Your task to perform on an android device: move a message to another label in the gmail app Image 0: 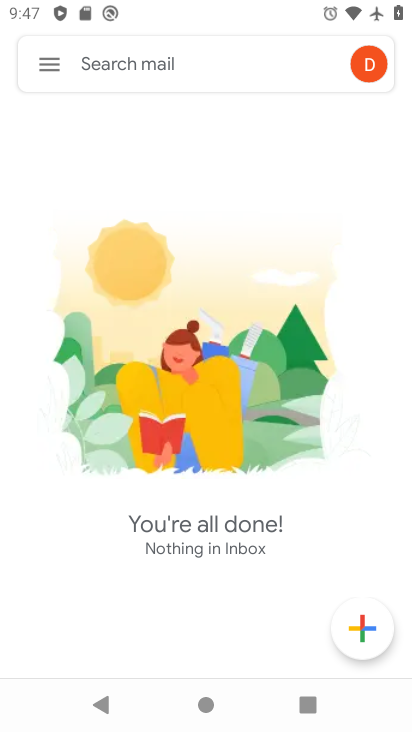
Step 0: press back button
Your task to perform on an android device: move a message to another label in the gmail app Image 1: 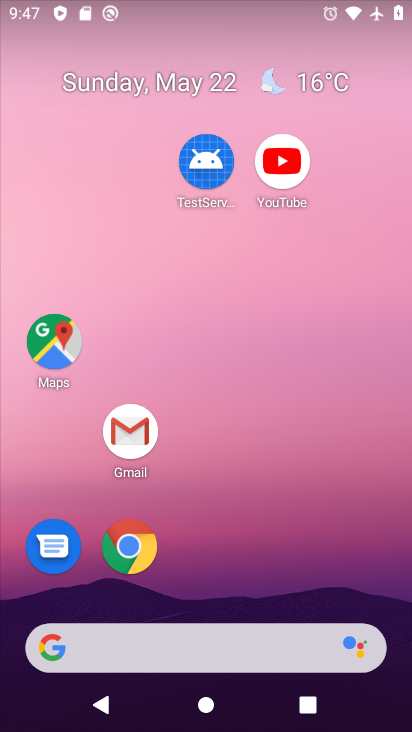
Step 1: drag from (244, 596) to (215, 12)
Your task to perform on an android device: move a message to another label in the gmail app Image 2: 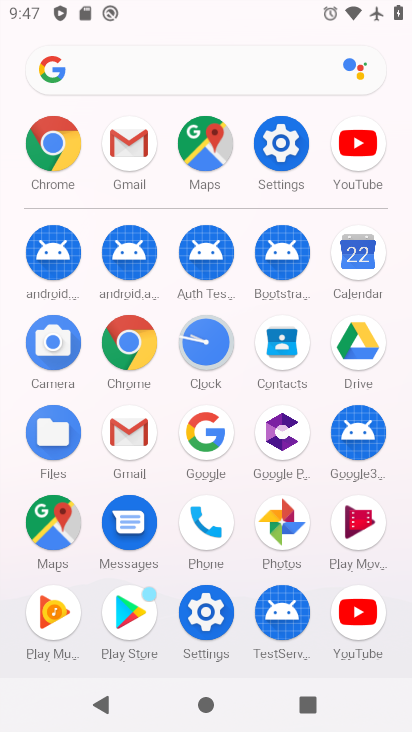
Step 2: click (127, 446)
Your task to perform on an android device: move a message to another label in the gmail app Image 3: 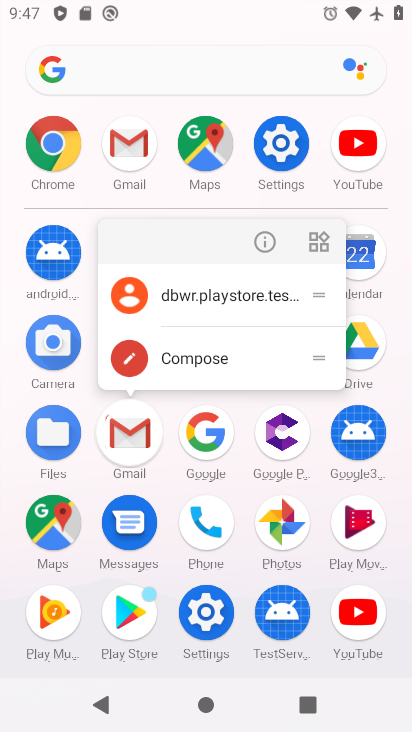
Step 3: click (127, 446)
Your task to perform on an android device: move a message to another label in the gmail app Image 4: 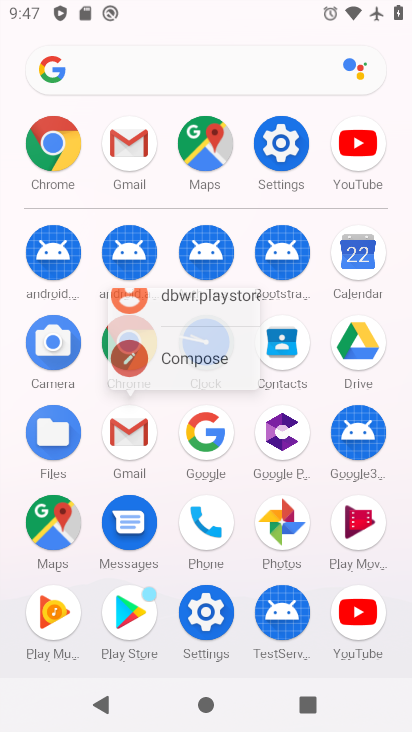
Step 4: click (127, 446)
Your task to perform on an android device: move a message to another label in the gmail app Image 5: 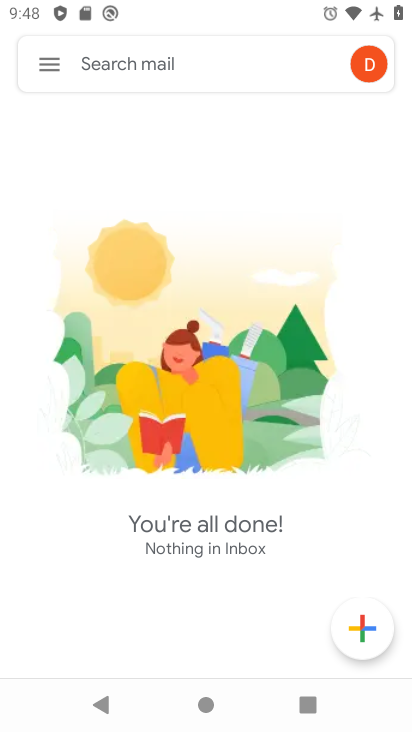
Step 5: press back button
Your task to perform on an android device: move a message to another label in the gmail app Image 6: 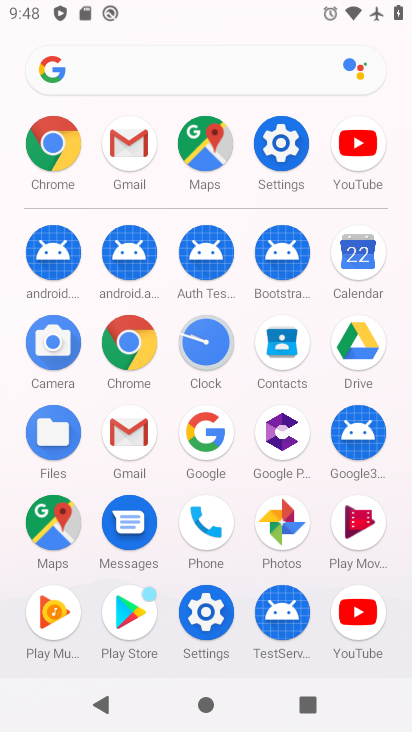
Step 6: click (133, 426)
Your task to perform on an android device: move a message to another label in the gmail app Image 7: 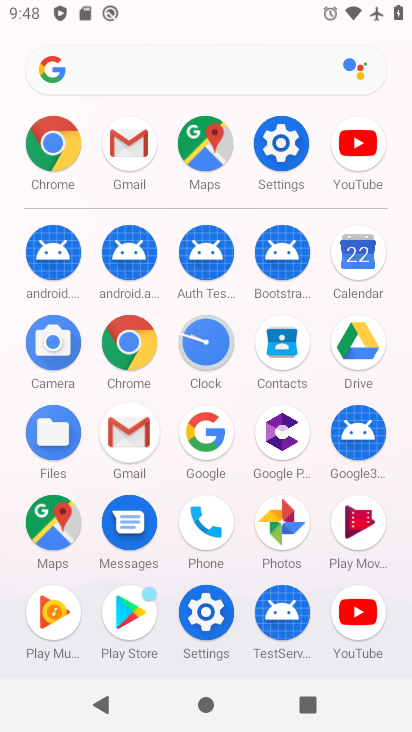
Step 7: click (133, 426)
Your task to perform on an android device: move a message to another label in the gmail app Image 8: 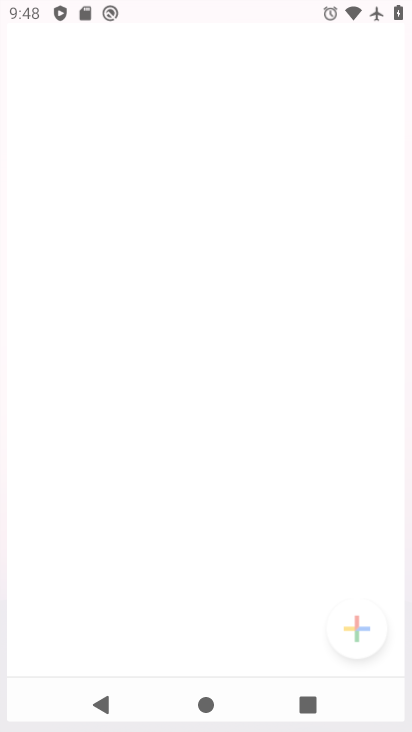
Step 8: click (133, 426)
Your task to perform on an android device: move a message to another label in the gmail app Image 9: 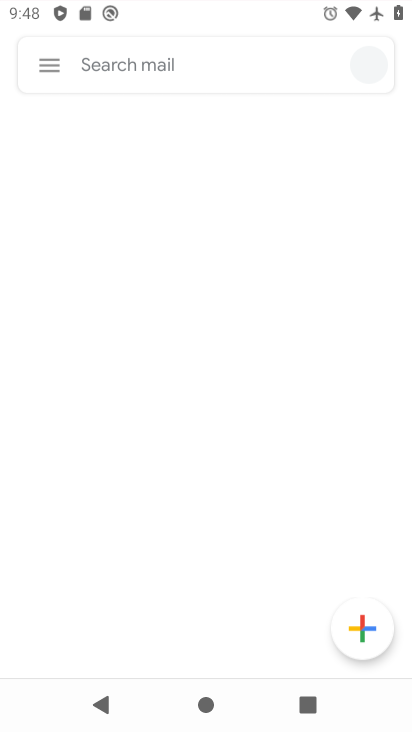
Step 9: click (133, 425)
Your task to perform on an android device: move a message to another label in the gmail app Image 10: 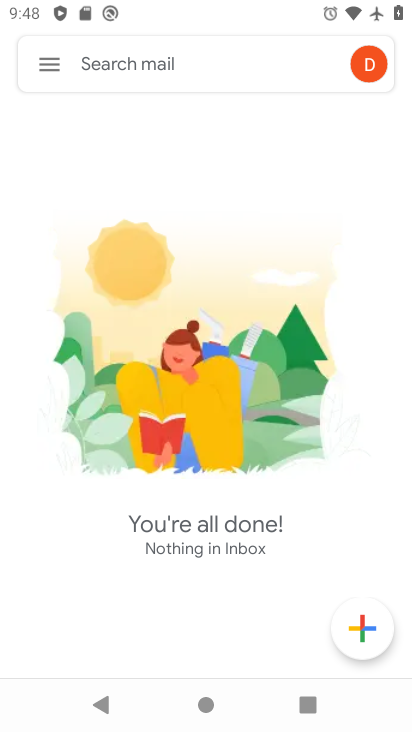
Step 10: click (40, 64)
Your task to perform on an android device: move a message to another label in the gmail app Image 11: 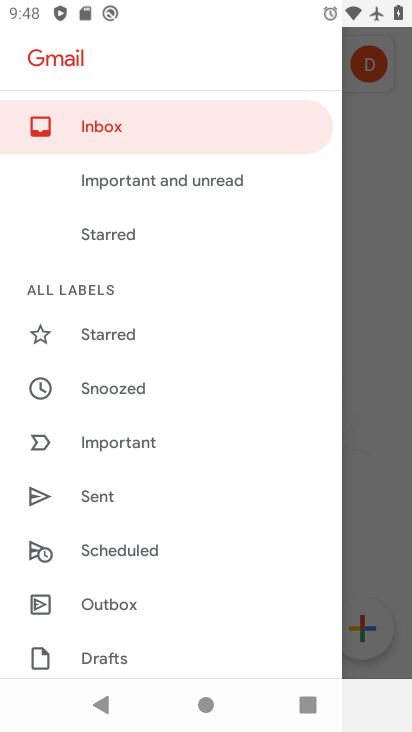
Step 11: drag from (155, 515) to (135, 168)
Your task to perform on an android device: move a message to another label in the gmail app Image 12: 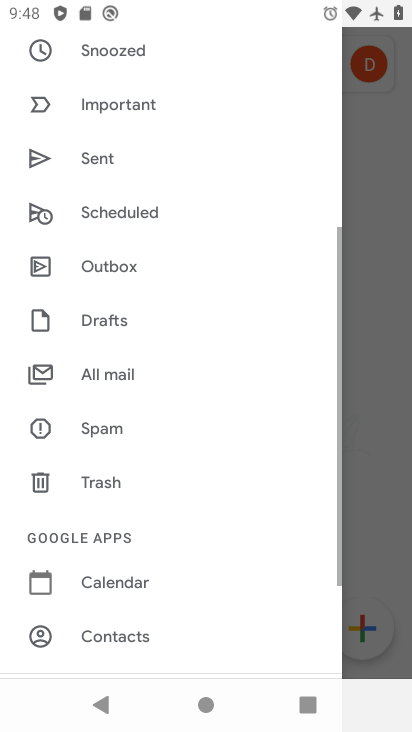
Step 12: drag from (190, 479) to (190, 172)
Your task to perform on an android device: move a message to another label in the gmail app Image 13: 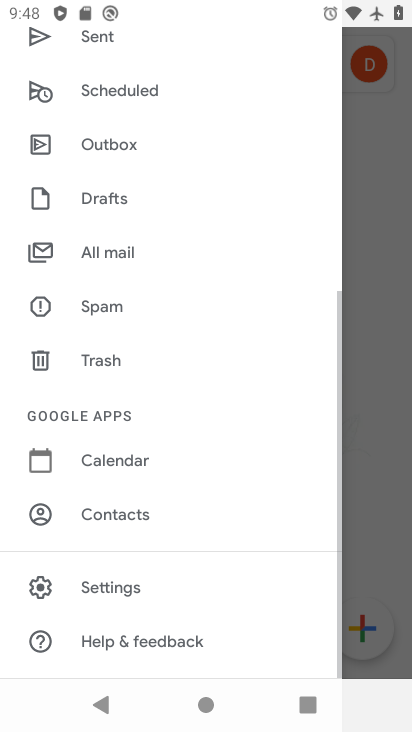
Step 13: click (96, 243)
Your task to perform on an android device: move a message to another label in the gmail app Image 14: 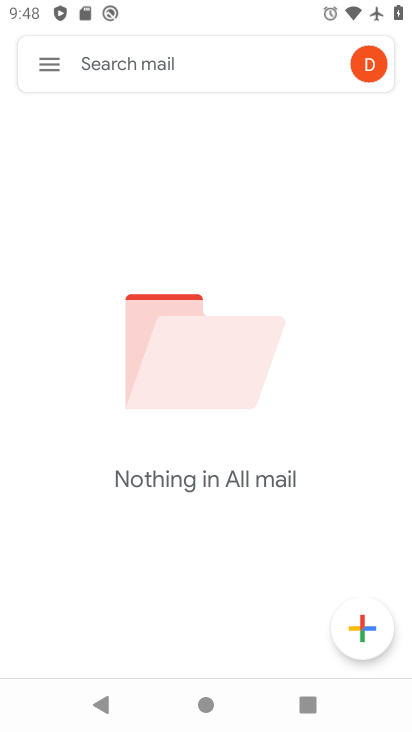
Step 14: task complete